Your task to perform on an android device: Go to network settings Image 0: 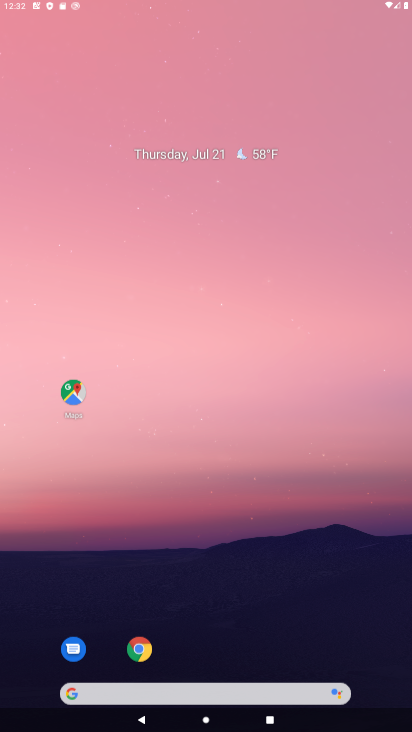
Step 0: click (321, 111)
Your task to perform on an android device: Go to network settings Image 1: 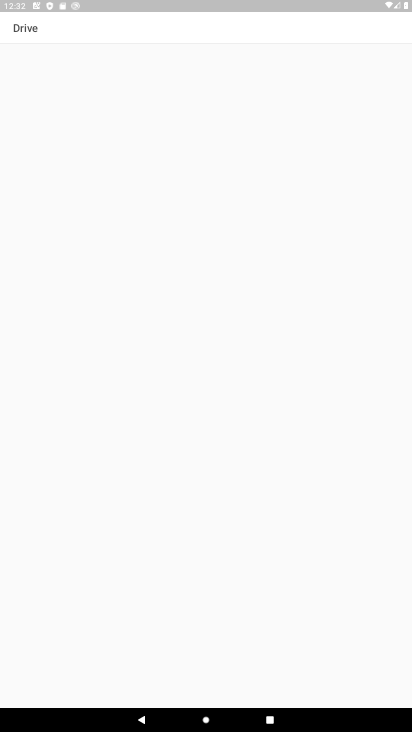
Step 1: press home button
Your task to perform on an android device: Go to network settings Image 2: 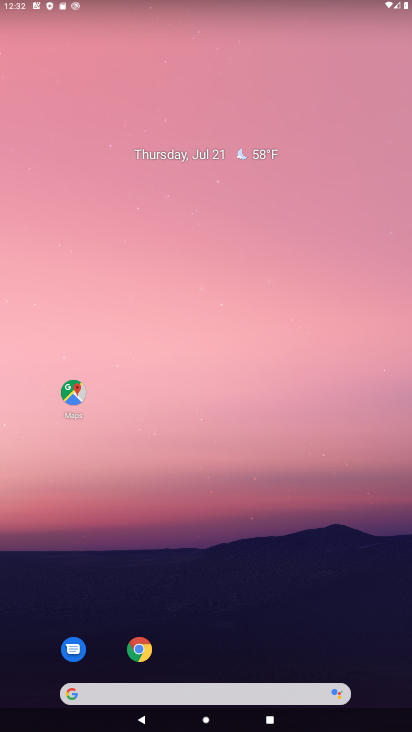
Step 2: drag from (376, 663) to (348, 181)
Your task to perform on an android device: Go to network settings Image 3: 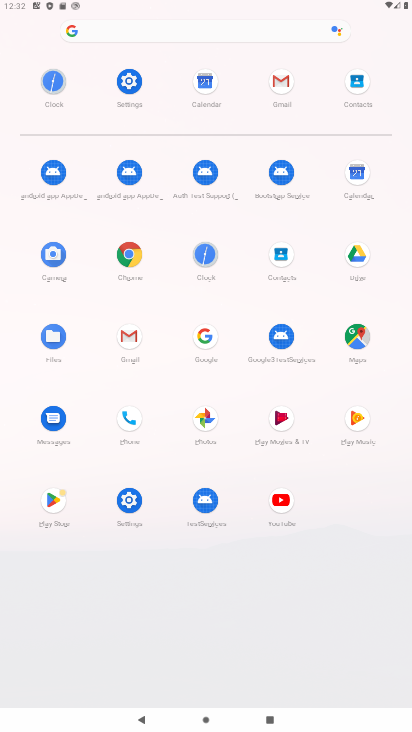
Step 3: click (129, 501)
Your task to perform on an android device: Go to network settings Image 4: 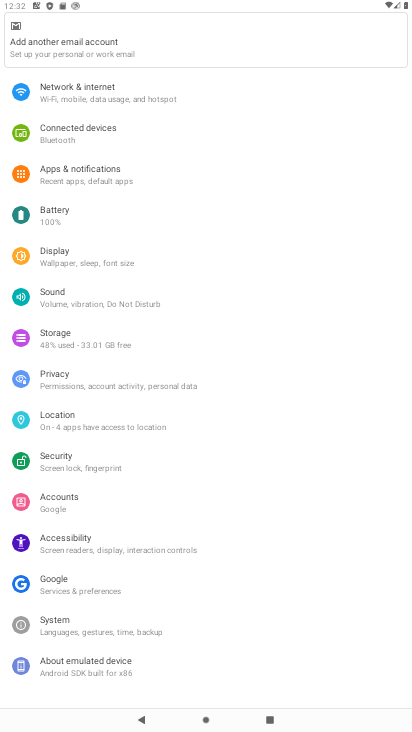
Step 4: click (72, 90)
Your task to perform on an android device: Go to network settings Image 5: 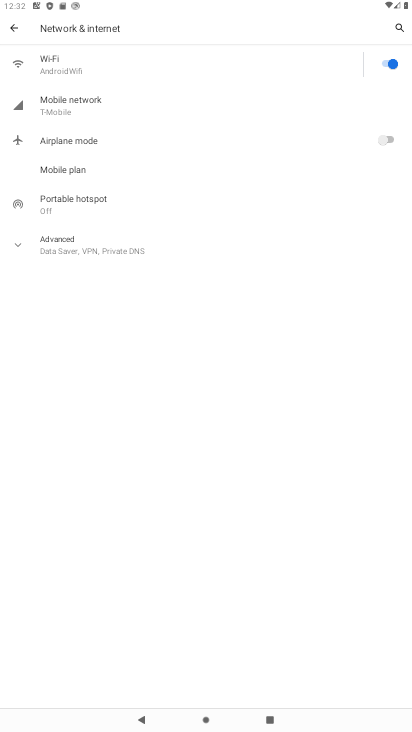
Step 5: click (55, 97)
Your task to perform on an android device: Go to network settings Image 6: 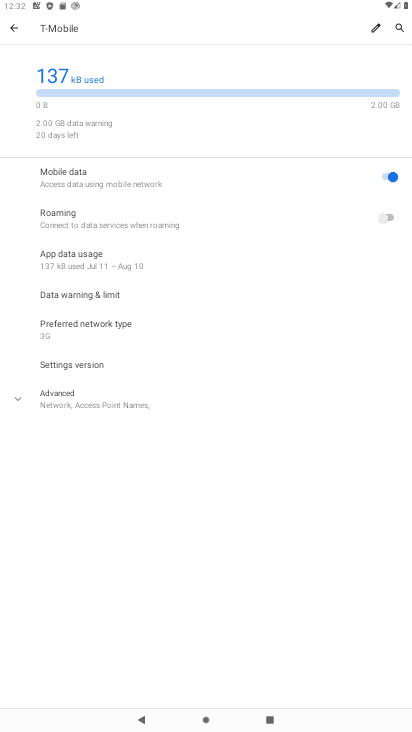
Step 6: click (17, 398)
Your task to perform on an android device: Go to network settings Image 7: 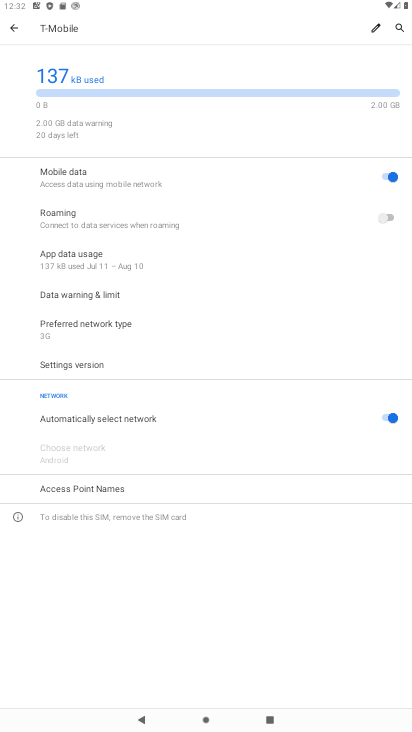
Step 7: task complete